Your task to perform on an android device: turn on sleep mode Image 0: 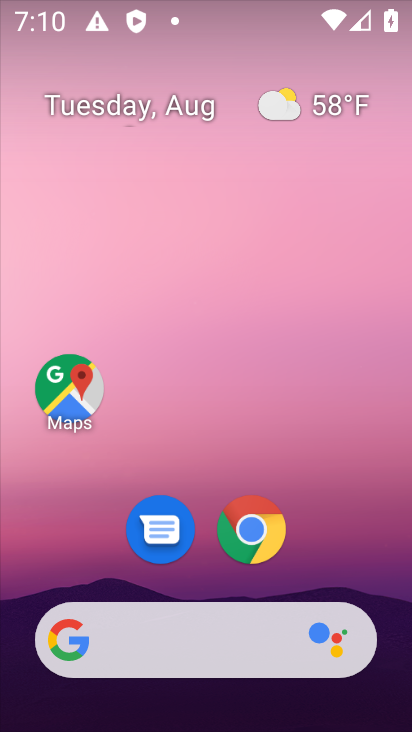
Step 0: drag from (206, 584) to (210, 7)
Your task to perform on an android device: turn on sleep mode Image 1: 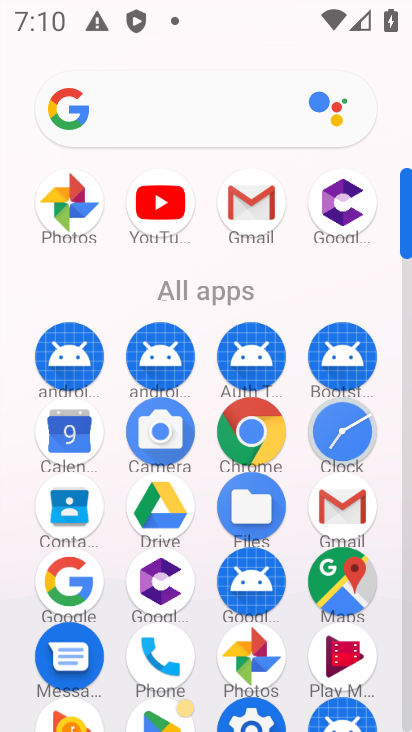
Step 1: drag from (113, 566) to (121, 0)
Your task to perform on an android device: turn on sleep mode Image 2: 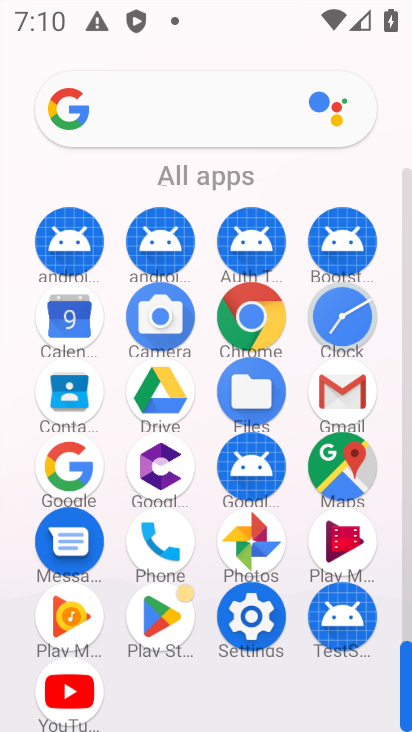
Step 2: click (256, 620)
Your task to perform on an android device: turn on sleep mode Image 3: 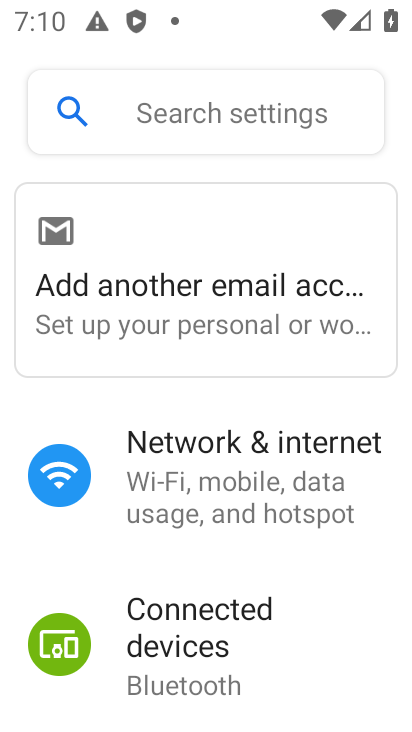
Step 3: drag from (295, 665) to (321, 146)
Your task to perform on an android device: turn on sleep mode Image 4: 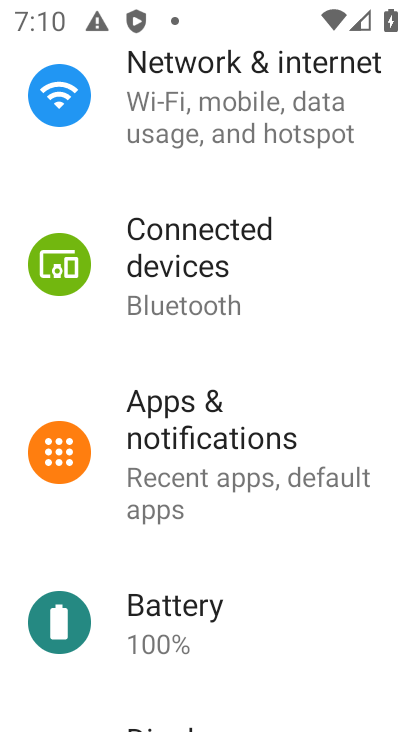
Step 4: drag from (291, 636) to (330, 172)
Your task to perform on an android device: turn on sleep mode Image 5: 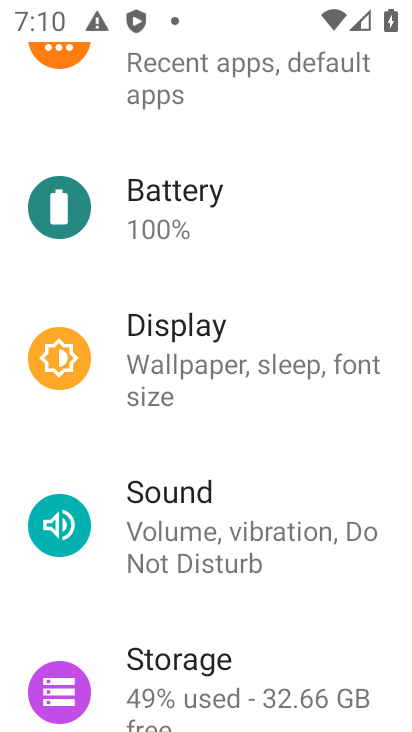
Step 5: click (171, 346)
Your task to perform on an android device: turn on sleep mode Image 6: 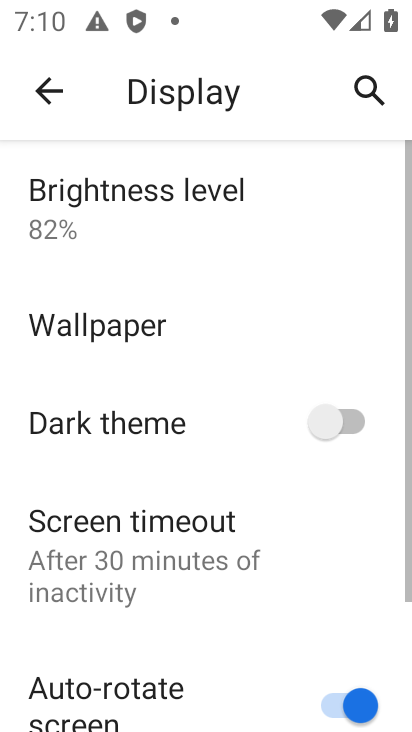
Step 6: task complete